Your task to perform on an android device: snooze an email in the gmail app Image 0: 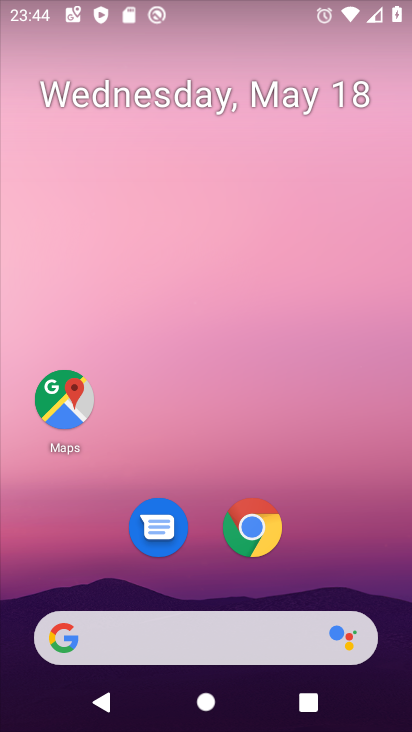
Step 0: drag from (336, 567) to (341, 142)
Your task to perform on an android device: snooze an email in the gmail app Image 1: 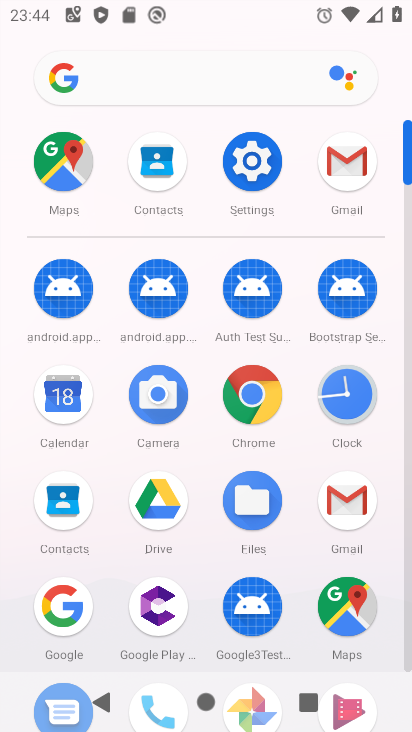
Step 1: click (346, 499)
Your task to perform on an android device: snooze an email in the gmail app Image 2: 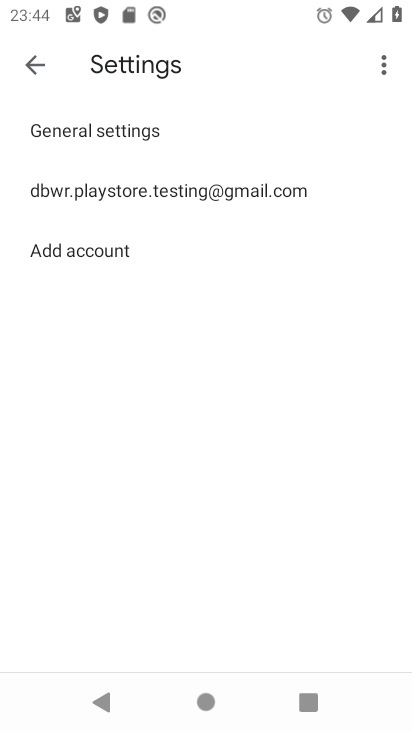
Step 2: click (35, 78)
Your task to perform on an android device: snooze an email in the gmail app Image 3: 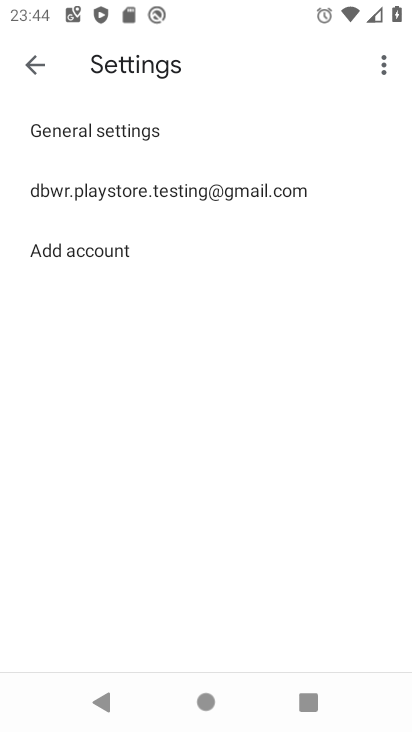
Step 3: click (35, 78)
Your task to perform on an android device: snooze an email in the gmail app Image 4: 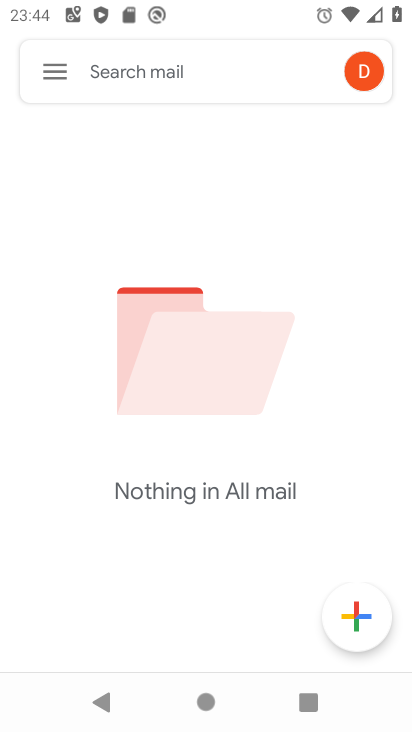
Step 4: click (49, 74)
Your task to perform on an android device: snooze an email in the gmail app Image 5: 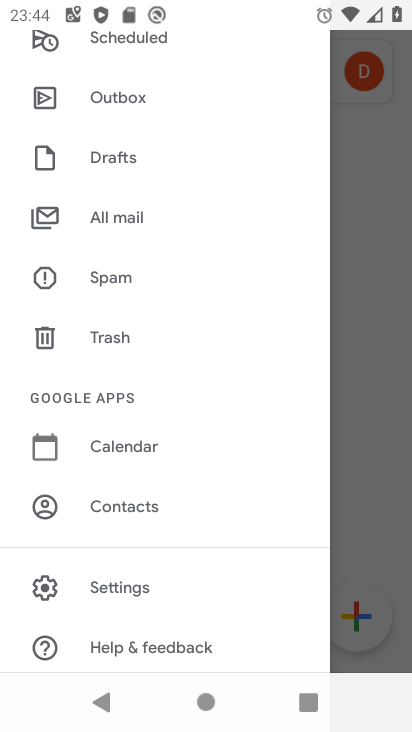
Step 5: drag from (131, 72) to (122, 191)
Your task to perform on an android device: snooze an email in the gmail app Image 6: 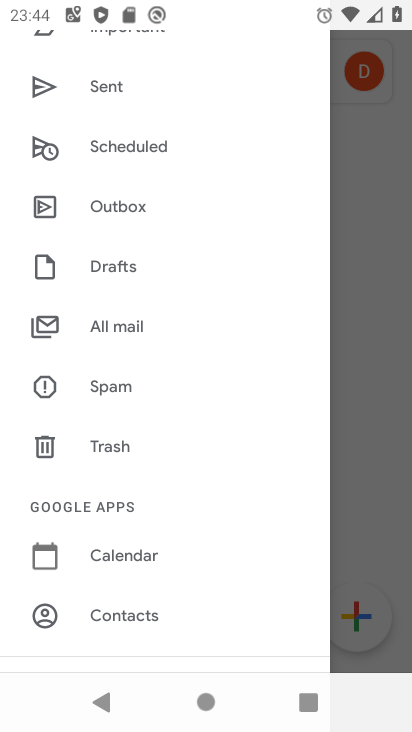
Step 6: click (107, 318)
Your task to perform on an android device: snooze an email in the gmail app Image 7: 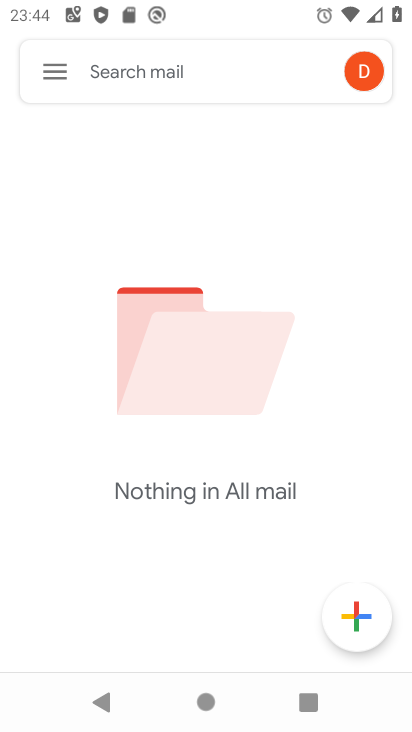
Step 7: task complete